Your task to perform on an android device: View the shopping cart on ebay.com. Search for bose soundlink on ebay.com, select the first entry, add it to the cart, then select checkout. Image 0: 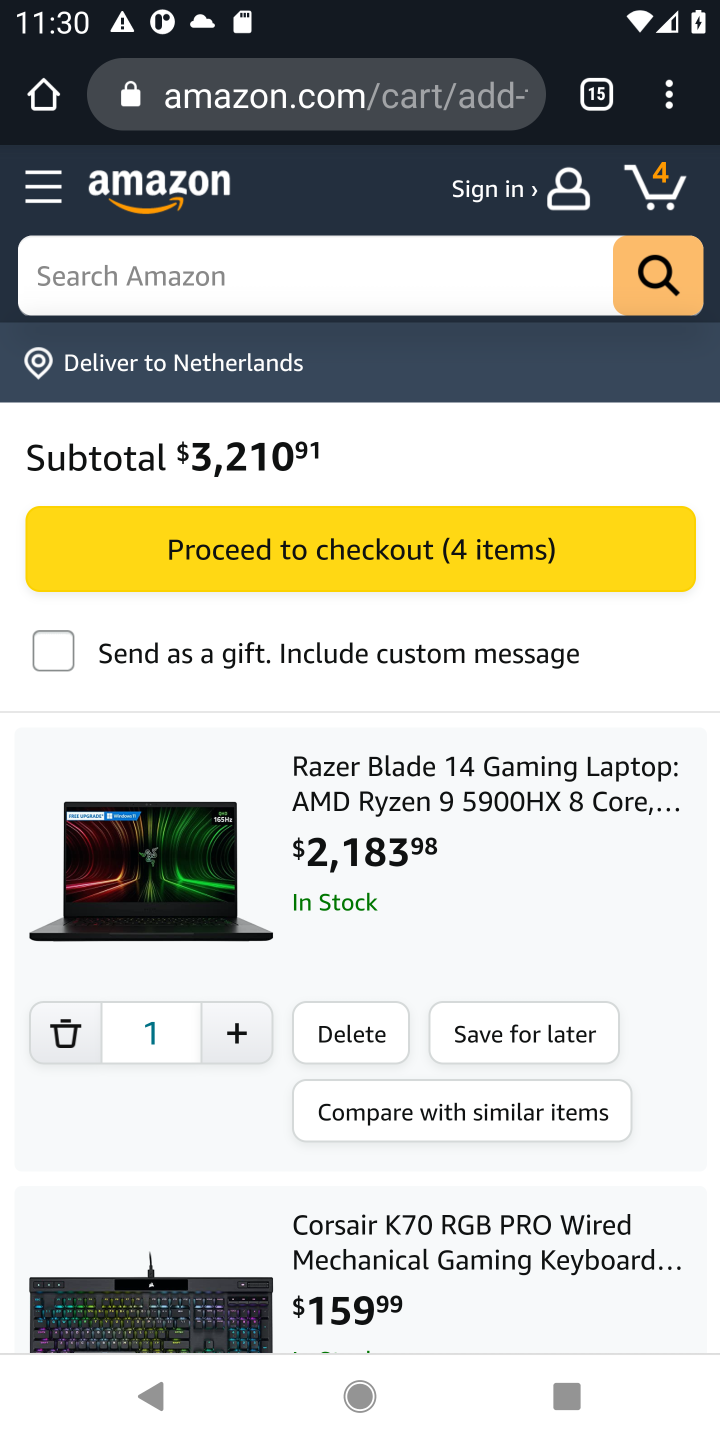
Step 0: press home button
Your task to perform on an android device: View the shopping cart on ebay.com. Search for bose soundlink on ebay.com, select the first entry, add it to the cart, then select checkout. Image 1: 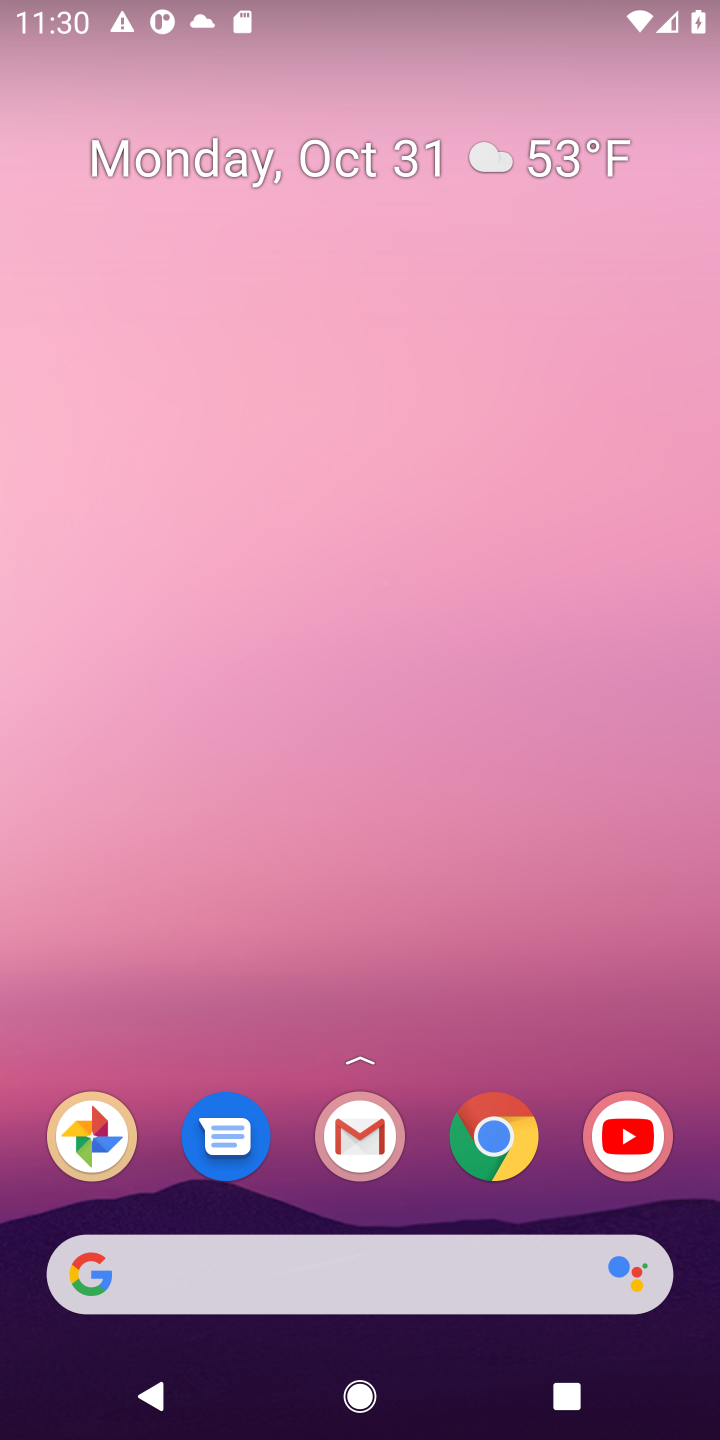
Step 1: click (125, 1273)
Your task to perform on an android device: View the shopping cart on ebay.com. Search for bose soundlink on ebay.com, select the first entry, add it to the cart, then select checkout. Image 2: 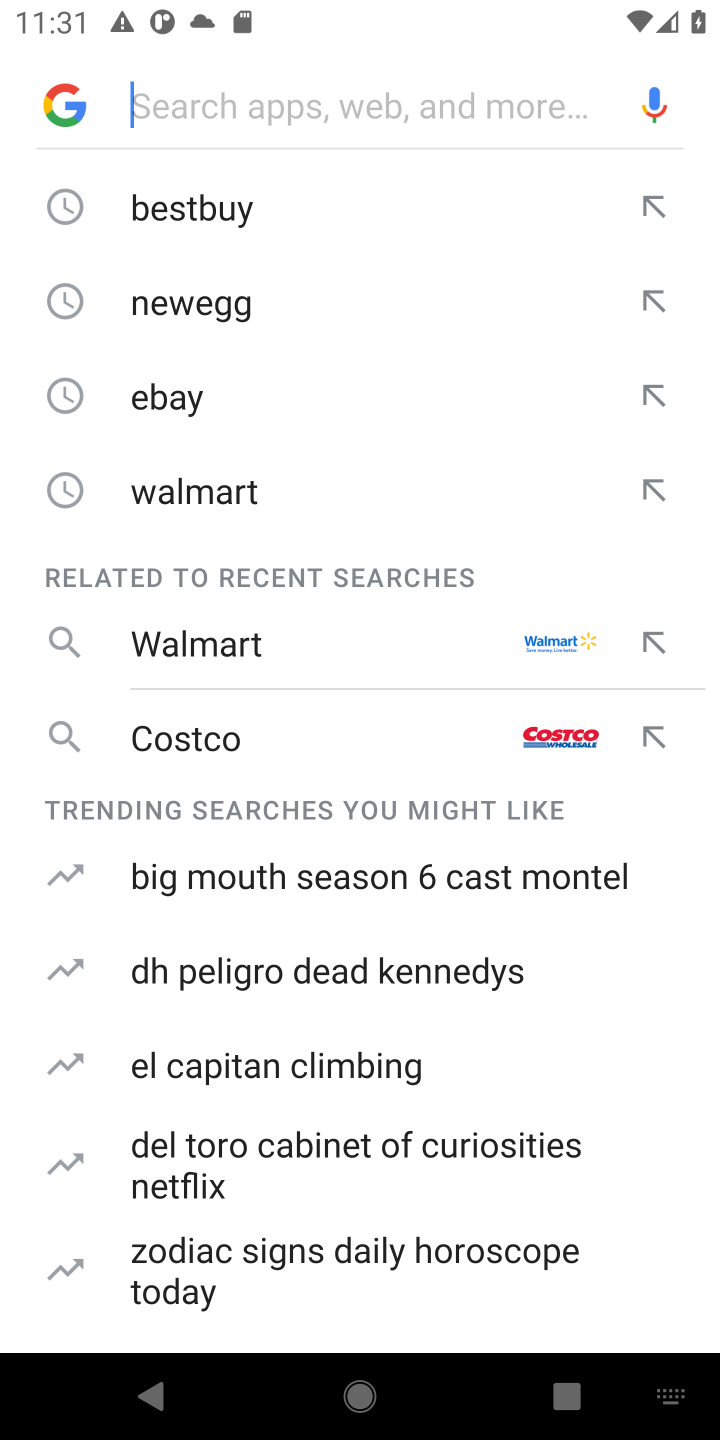
Step 2: press enter
Your task to perform on an android device: View the shopping cart on ebay.com. Search for bose soundlink on ebay.com, select the first entry, add it to the cart, then select checkout. Image 3: 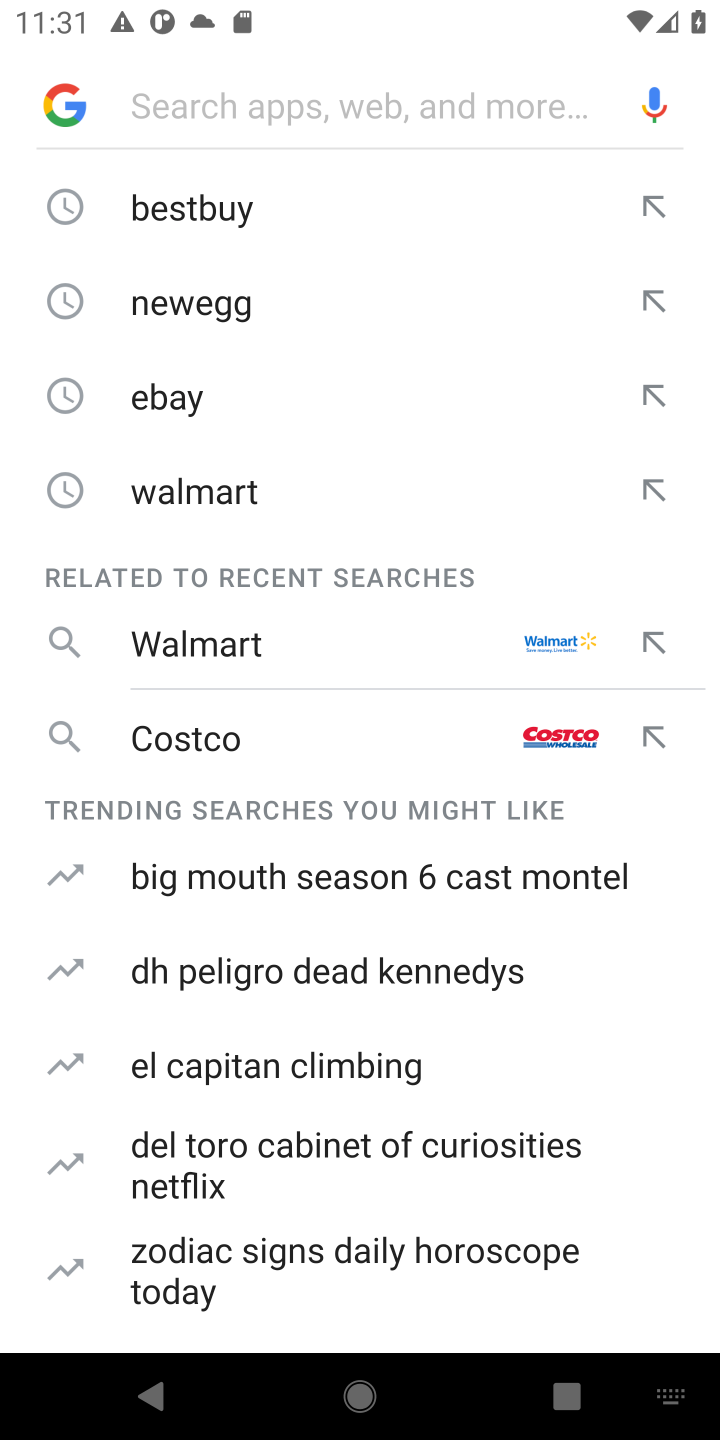
Step 3: type "ebay.com"
Your task to perform on an android device: View the shopping cart on ebay.com. Search for bose soundlink on ebay.com, select the first entry, add it to the cart, then select checkout. Image 4: 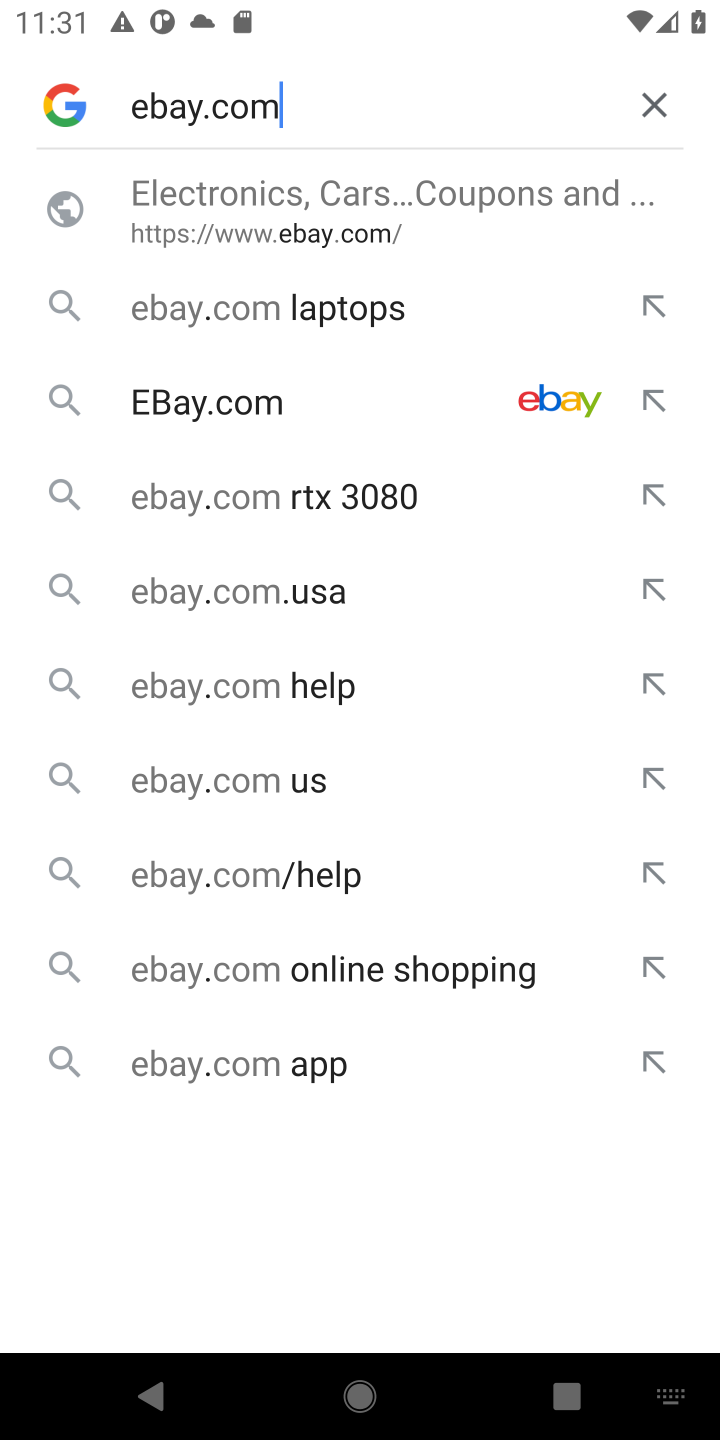
Step 4: press enter
Your task to perform on an android device: View the shopping cart on ebay.com. Search for bose soundlink on ebay.com, select the first entry, add it to the cart, then select checkout. Image 5: 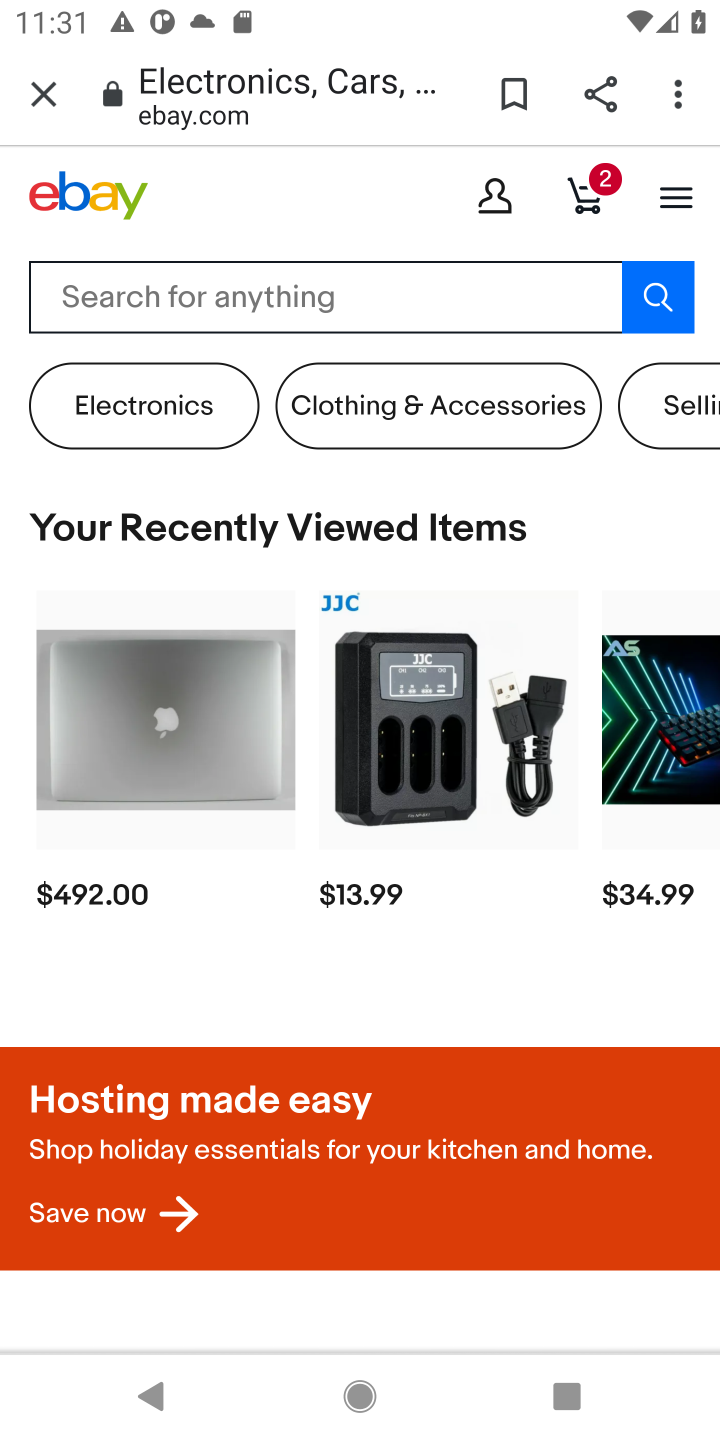
Step 5: click (586, 191)
Your task to perform on an android device: View the shopping cart on ebay.com. Search for bose soundlink on ebay.com, select the first entry, add it to the cart, then select checkout. Image 6: 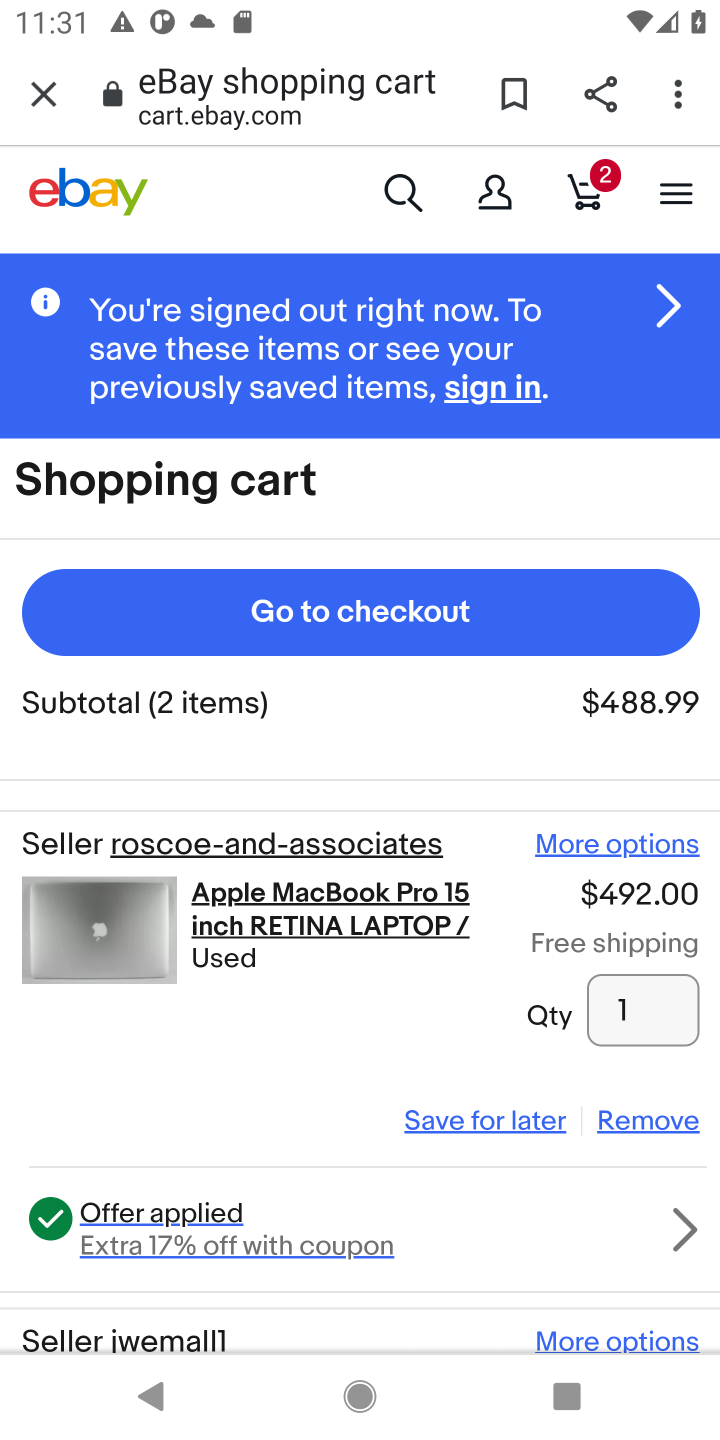
Step 6: click (391, 185)
Your task to perform on an android device: View the shopping cart on ebay.com. Search for bose soundlink on ebay.com, select the first entry, add it to the cart, then select checkout. Image 7: 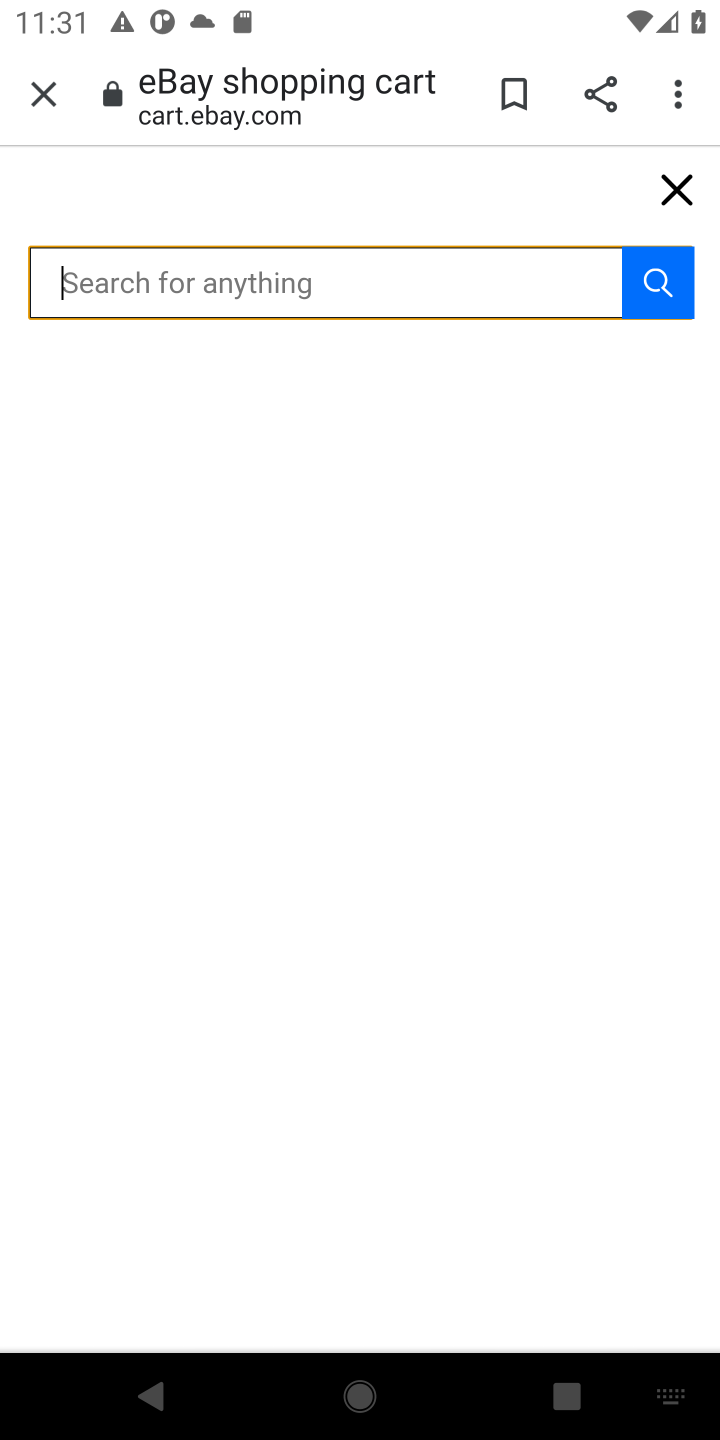
Step 7: type "bose soundlink"
Your task to perform on an android device: View the shopping cart on ebay.com. Search for bose soundlink on ebay.com, select the first entry, add it to the cart, then select checkout. Image 8: 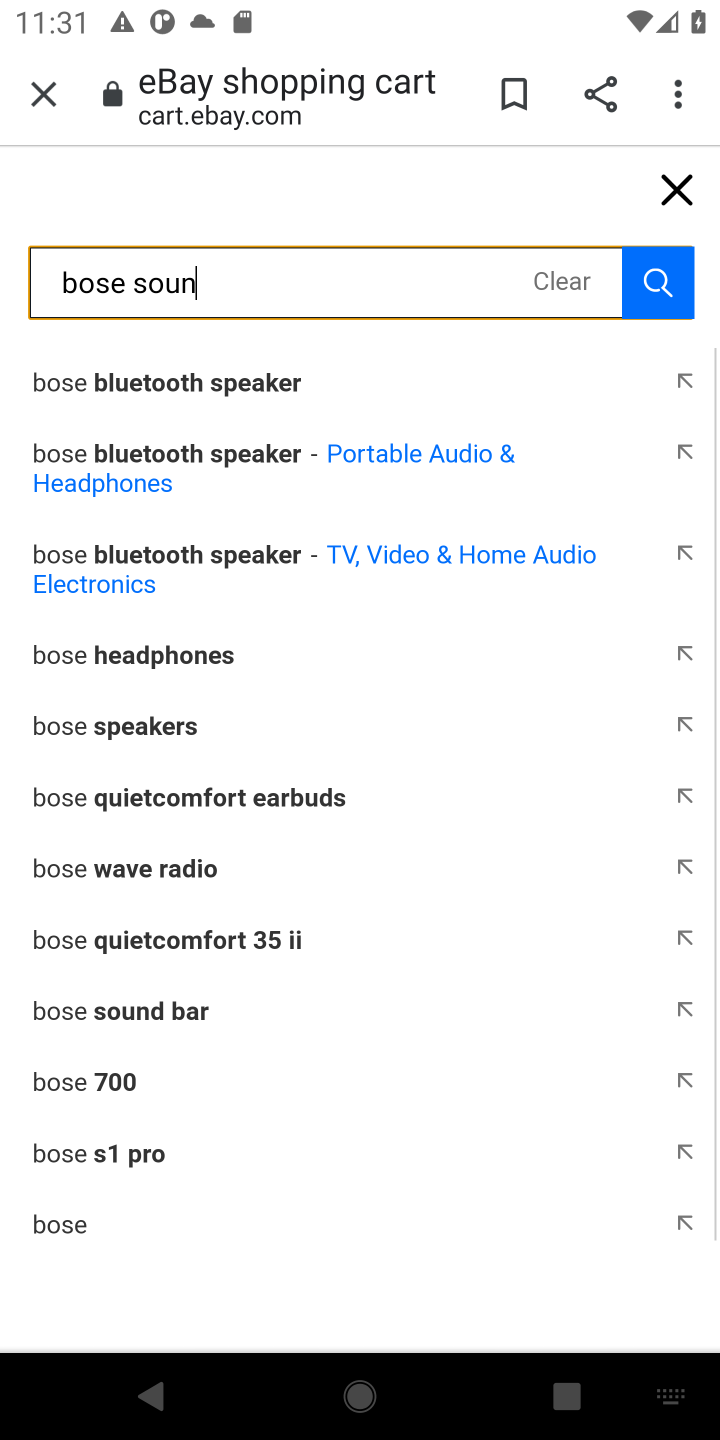
Step 8: press enter
Your task to perform on an android device: View the shopping cart on ebay.com. Search for bose soundlink on ebay.com, select the first entry, add it to the cart, then select checkout. Image 9: 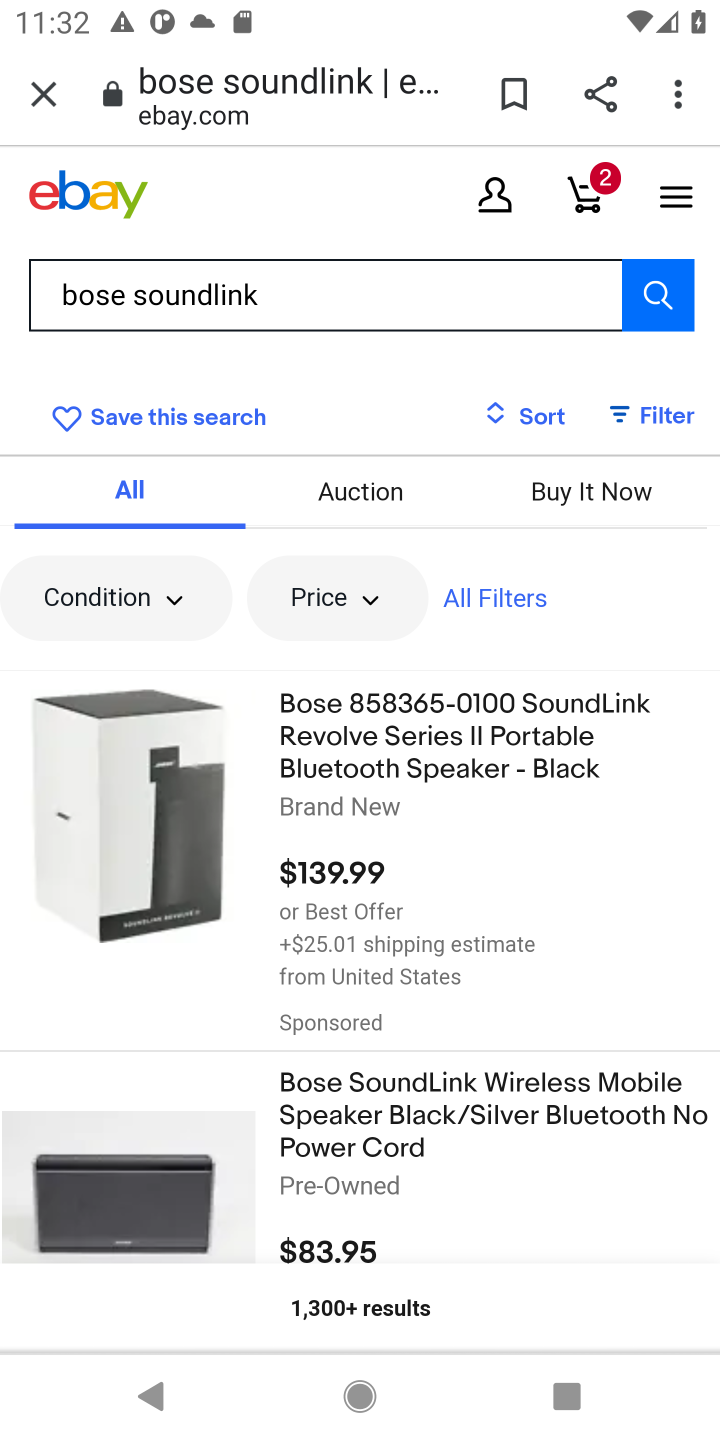
Step 9: click (446, 745)
Your task to perform on an android device: View the shopping cart on ebay.com. Search for bose soundlink on ebay.com, select the first entry, add it to the cart, then select checkout. Image 10: 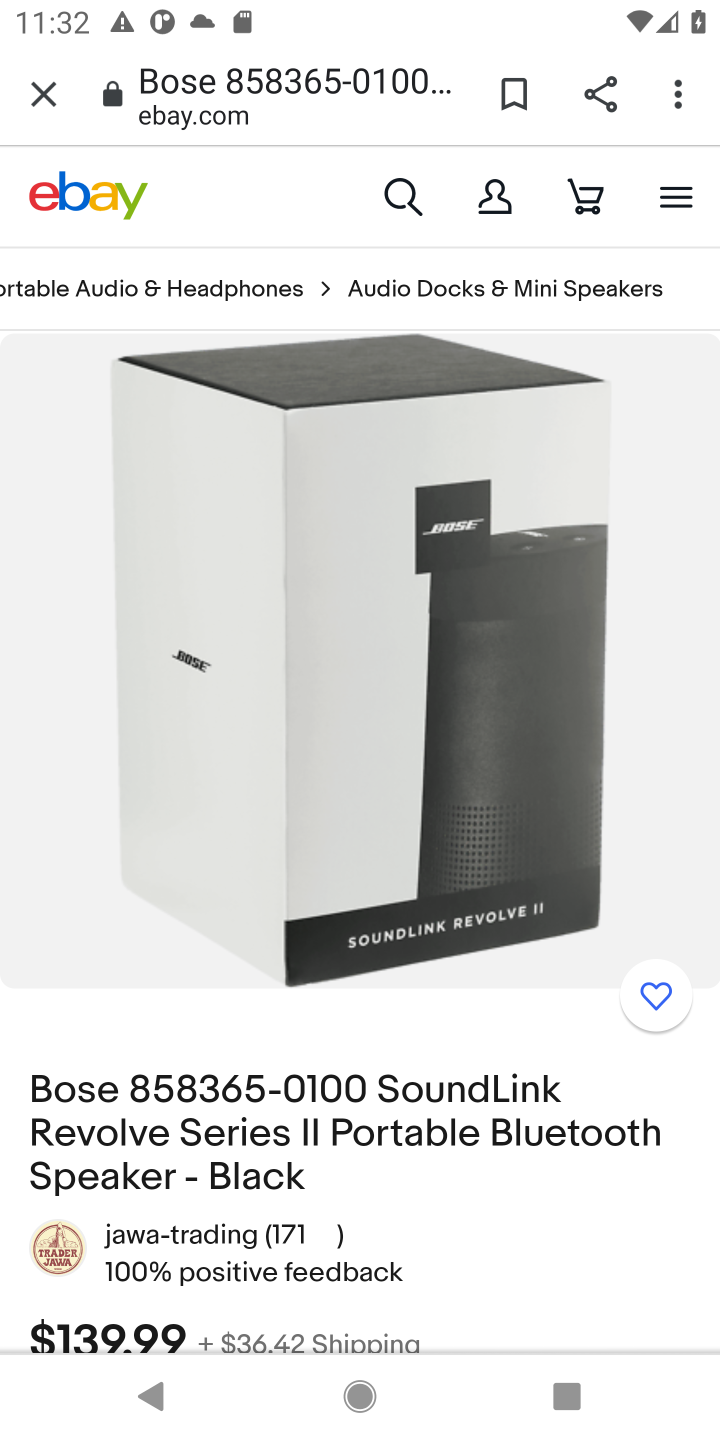
Step 10: drag from (487, 1096) to (500, 547)
Your task to perform on an android device: View the shopping cart on ebay.com. Search for bose soundlink on ebay.com, select the first entry, add it to the cart, then select checkout. Image 11: 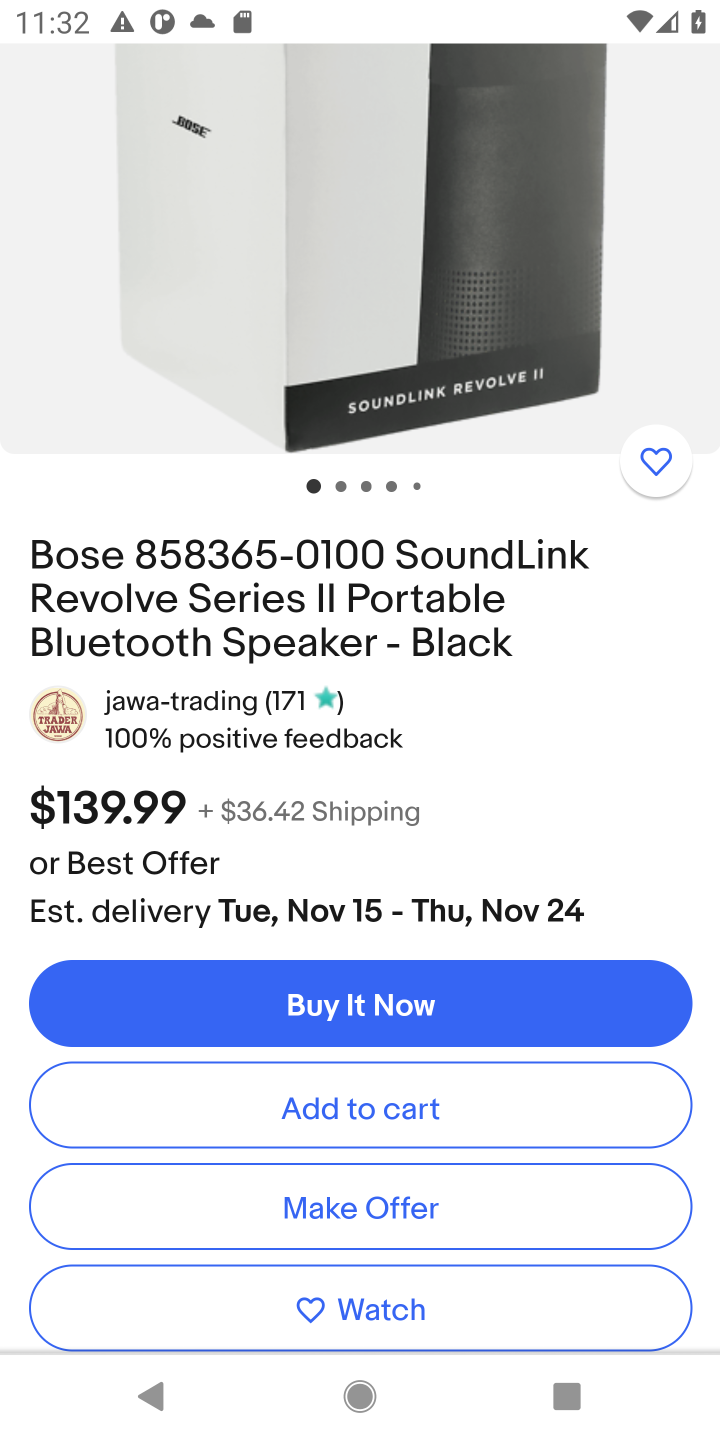
Step 11: drag from (521, 1125) to (502, 639)
Your task to perform on an android device: View the shopping cart on ebay.com. Search for bose soundlink on ebay.com, select the first entry, add it to the cart, then select checkout. Image 12: 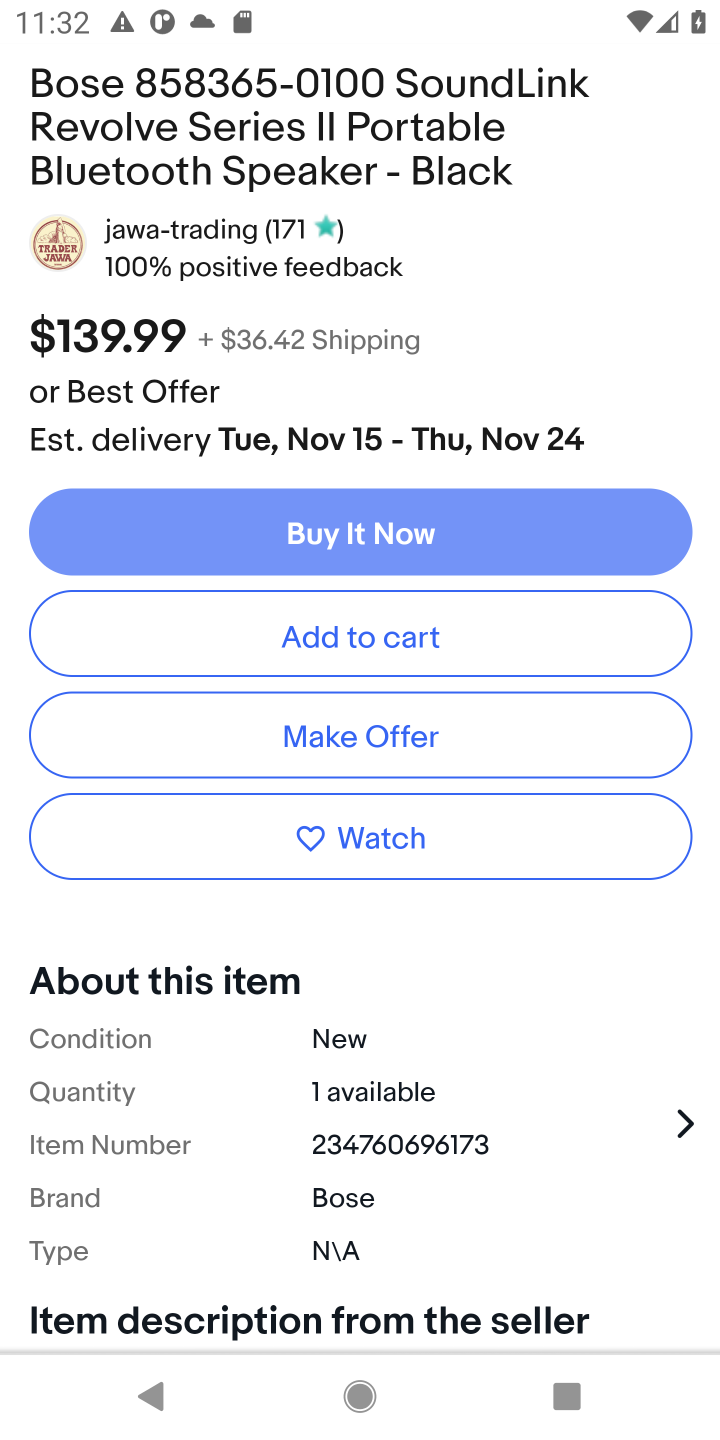
Step 12: click (346, 643)
Your task to perform on an android device: View the shopping cart on ebay.com. Search for bose soundlink on ebay.com, select the first entry, add it to the cart, then select checkout. Image 13: 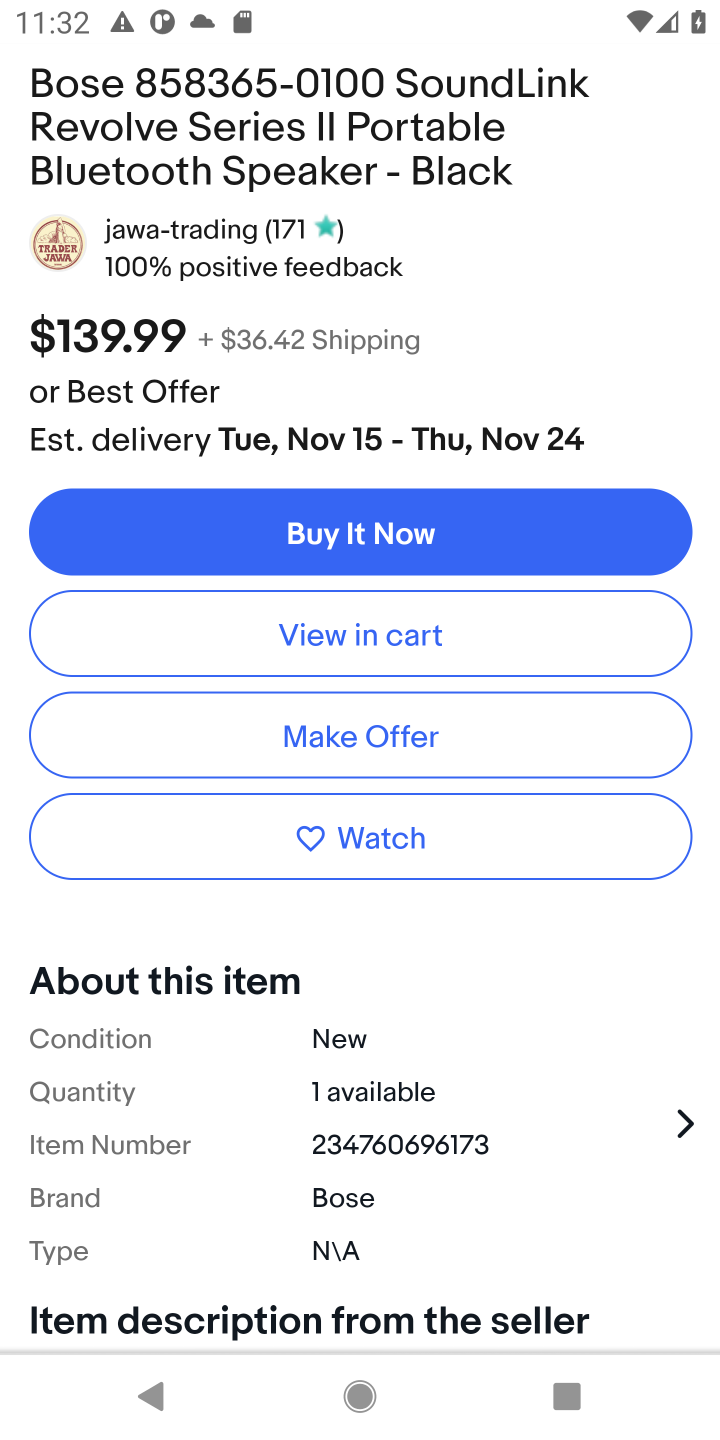
Step 13: click (346, 643)
Your task to perform on an android device: View the shopping cart on ebay.com. Search for bose soundlink on ebay.com, select the first entry, add it to the cart, then select checkout. Image 14: 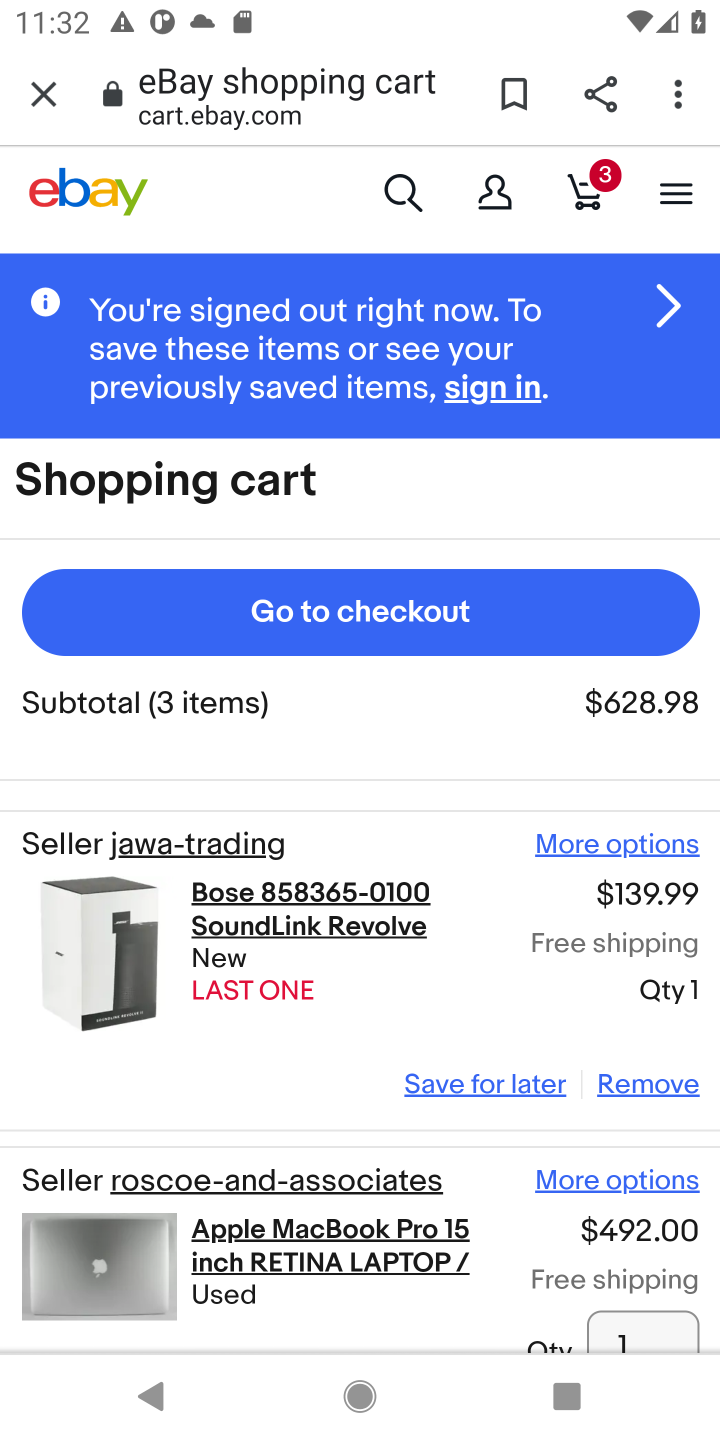
Step 14: click (410, 632)
Your task to perform on an android device: View the shopping cart on ebay.com. Search for bose soundlink on ebay.com, select the first entry, add it to the cart, then select checkout. Image 15: 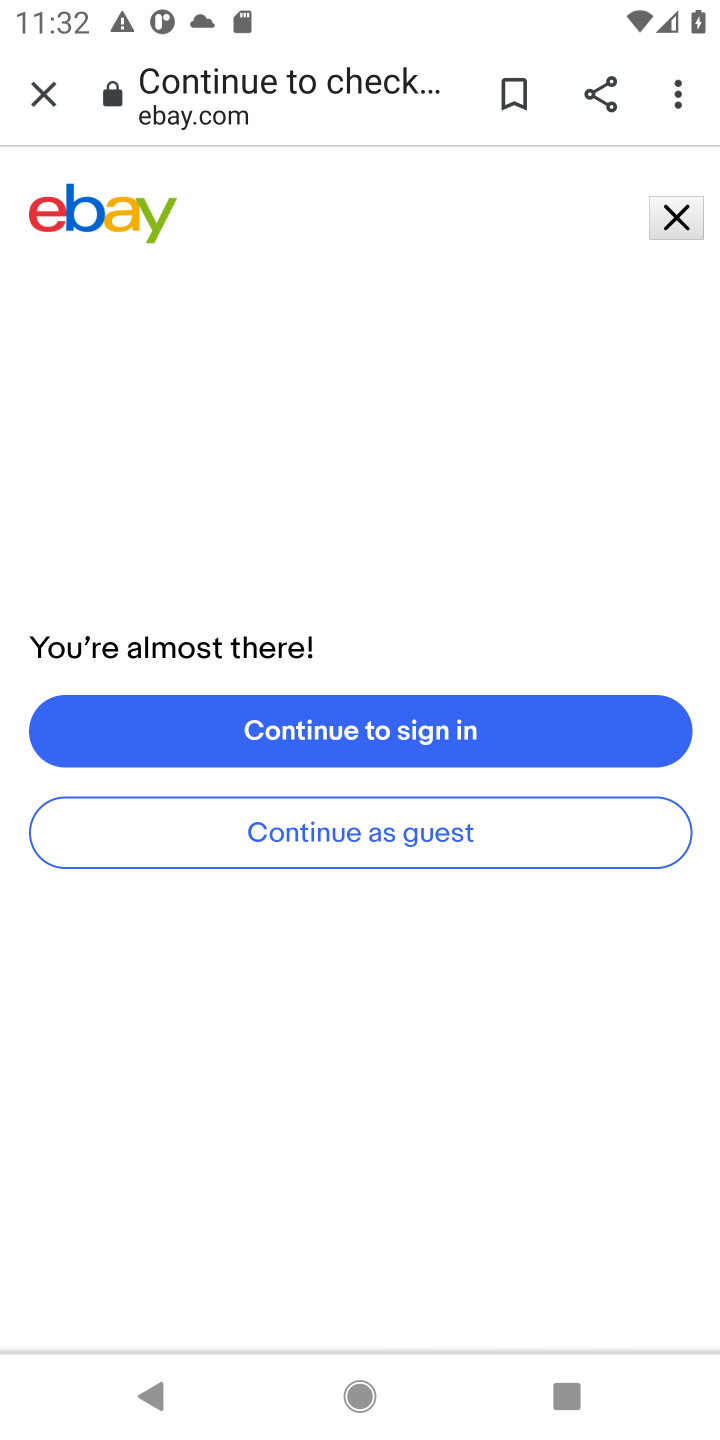
Step 15: task complete